Your task to perform on an android device: all mails in gmail Image 0: 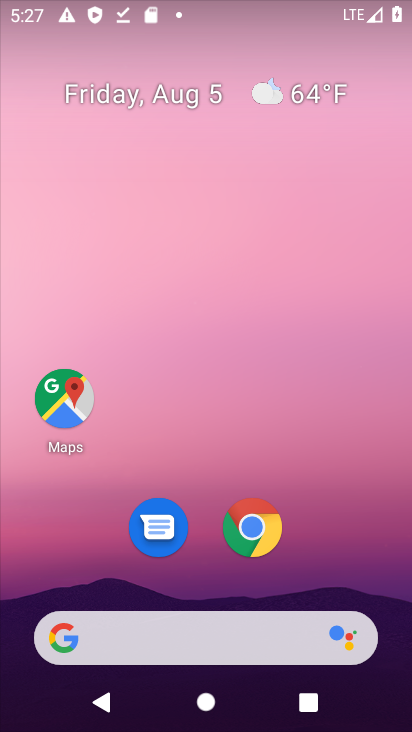
Step 0: drag from (217, 567) to (209, 166)
Your task to perform on an android device: all mails in gmail Image 1: 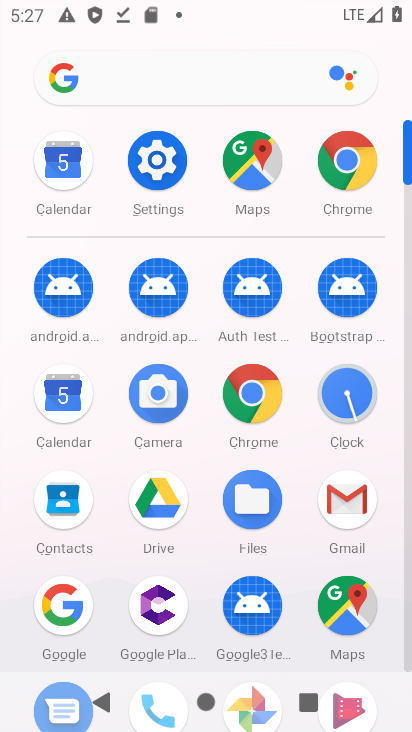
Step 1: click (348, 506)
Your task to perform on an android device: all mails in gmail Image 2: 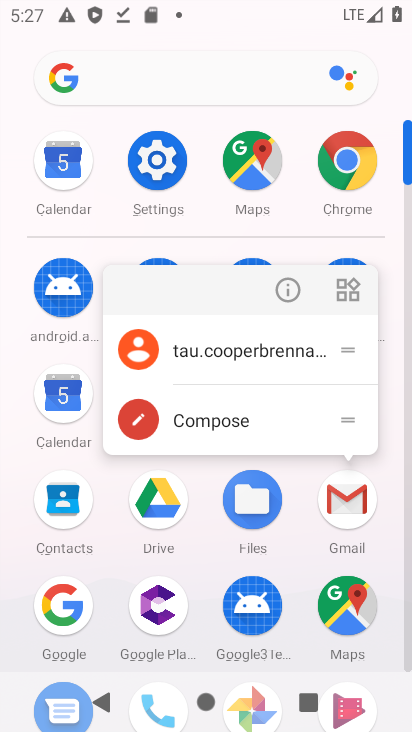
Step 2: click (305, 292)
Your task to perform on an android device: all mails in gmail Image 3: 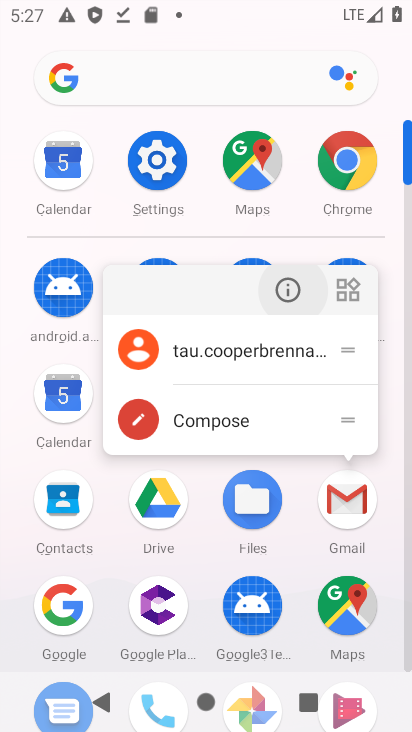
Step 3: click (294, 286)
Your task to perform on an android device: all mails in gmail Image 4: 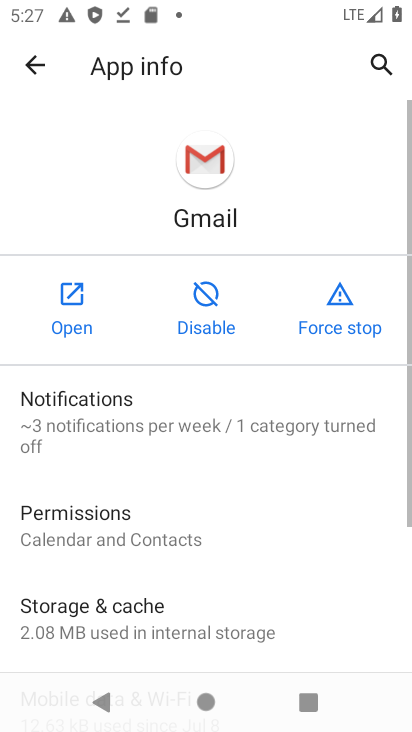
Step 4: click (77, 299)
Your task to perform on an android device: all mails in gmail Image 5: 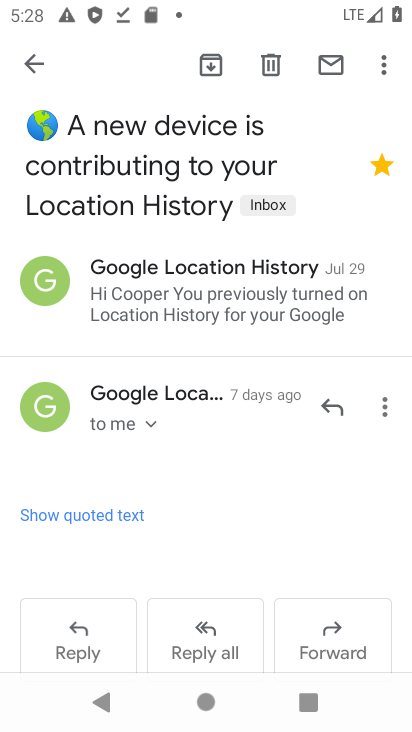
Step 5: drag from (235, 544) to (231, 302)
Your task to perform on an android device: all mails in gmail Image 6: 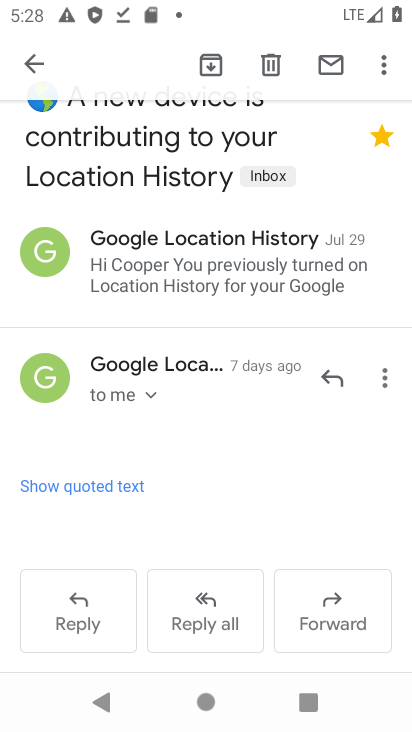
Step 6: drag from (219, 223) to (281, 557)
Your task to perform on an android device: all mails in gmail Image 7: 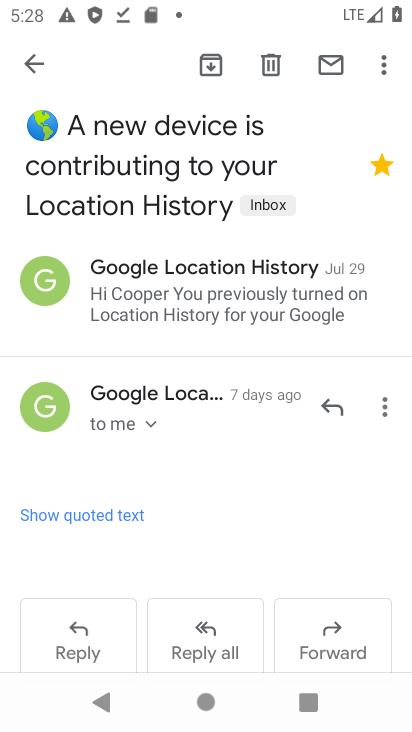
Step 7: click (42, 71)
Your task to perform on an android device: all mails in gmail Image 8: 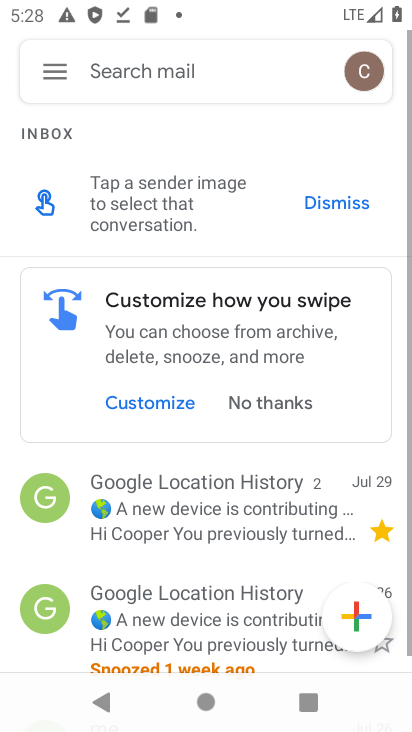
Step 8: click (43, 76)
Your task to perform on an android device: all mails in gmail Image 9: 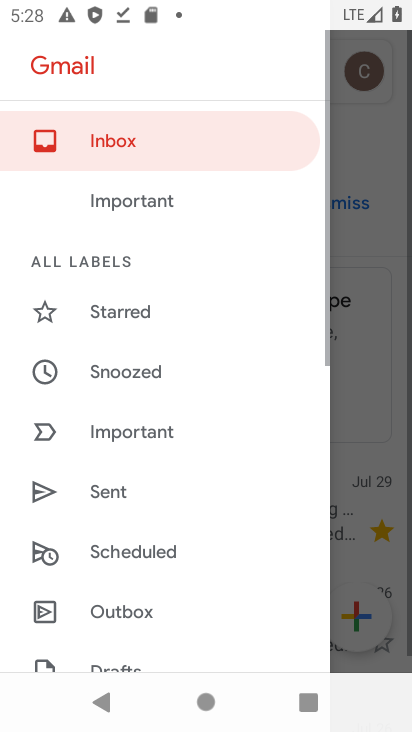
Step 9: drag from (144, 572) to (197, 51)
Your task to perform on an android device: all mails in gmail Image 10: 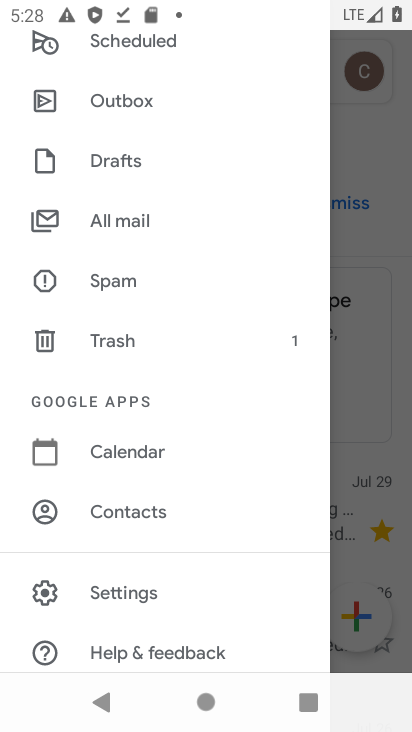
Step 10: click (129, 593)
Your task to perform on an android device: all mails in gmail Image 11: 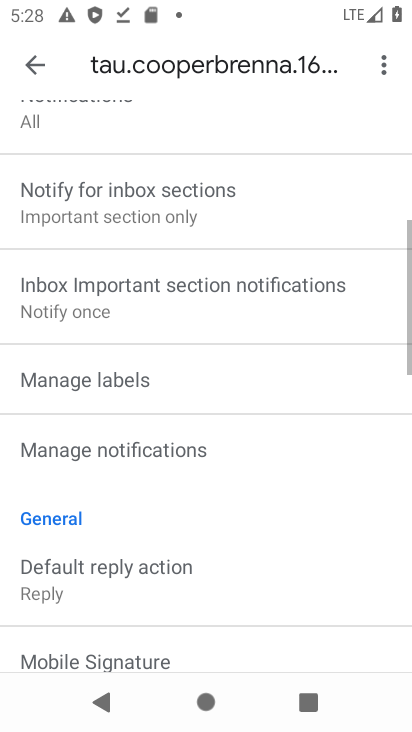
Step 11: drag from (170, 524) to (181, 189)
Your task to perform on an android device: all mails in gmail Image 12: 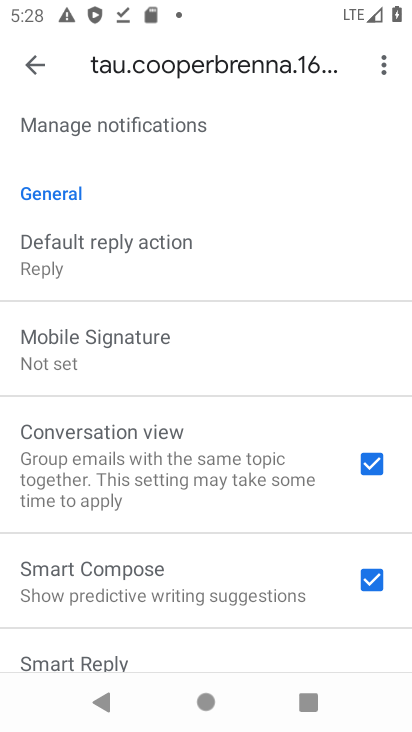
Step 12: click (33, 53)
Your task to perform on an android device: all mails in gmail Image 13: 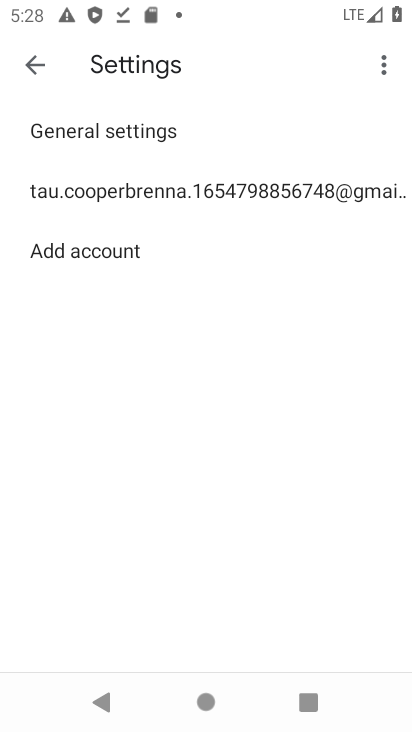
Step 13: click (40, 61)
Your task to perform on an android device: all mails in gmail Image 14: 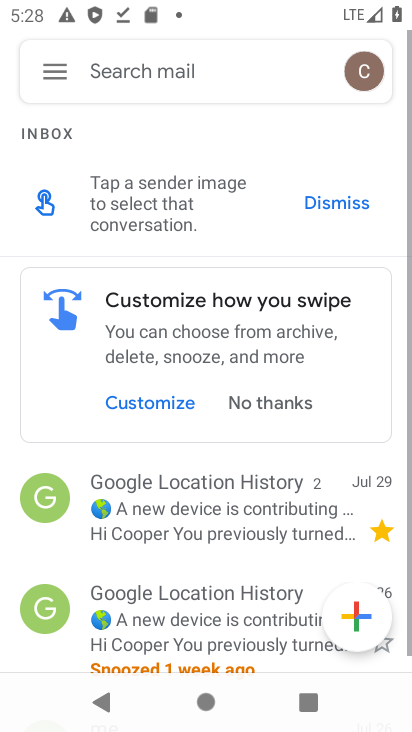
Step 14: click (49, 70)
Your task to perform on an android device: all mails in gmail Image 15: 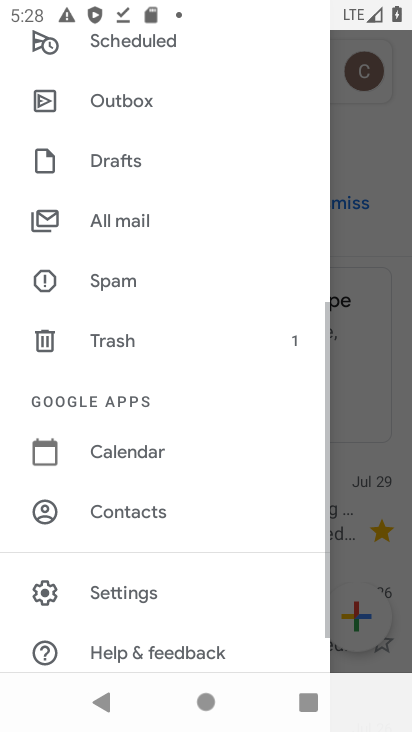
Step 15: click (105, 208)
Your task to perform on an android device: all mails in gmail Image 16: 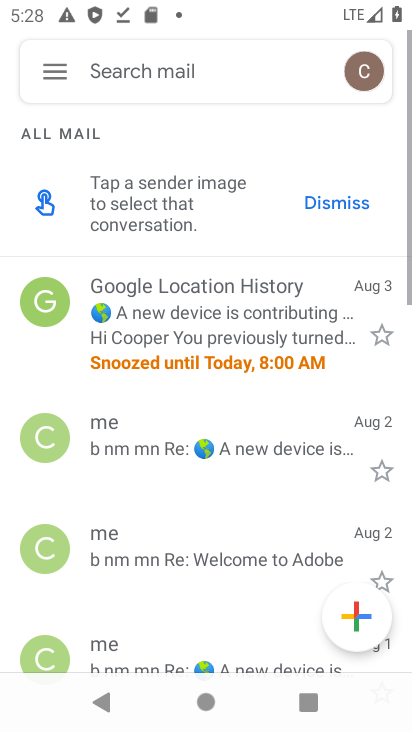
Step 16: task complete